Your task to perform on an android device: turn on the 24-hour format for clock Image 0: 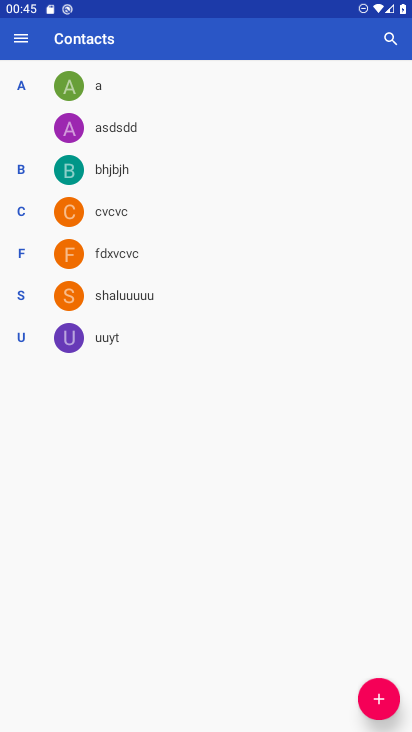
Step 0: press home button
Your task to perform on an android device: turn on the 24-hour format for clock Image 1: 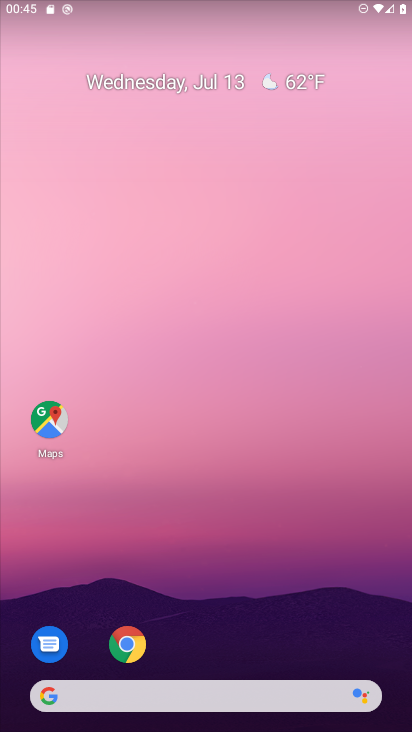
Step 1: drag from (211, 679) to (97, 115)
Your task to perform on an android device: turn on the 24-hour format for clock Image 2: 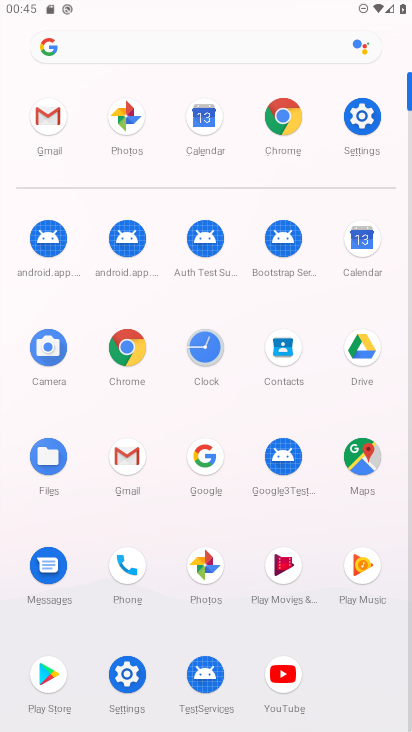
Step 2: click (201, 339)
Your task to perform on an android device: turn on the 24-hour format for clock Image 3: 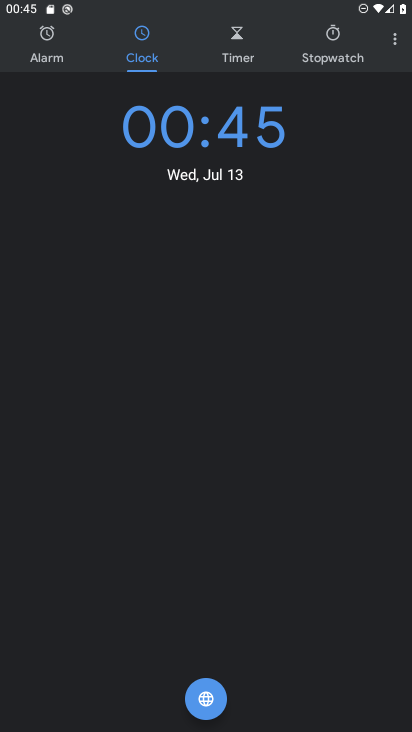
Step 3: click (396, 35)
Your task to perform on an android device: turn on the 24-hour format for clock Image 4: 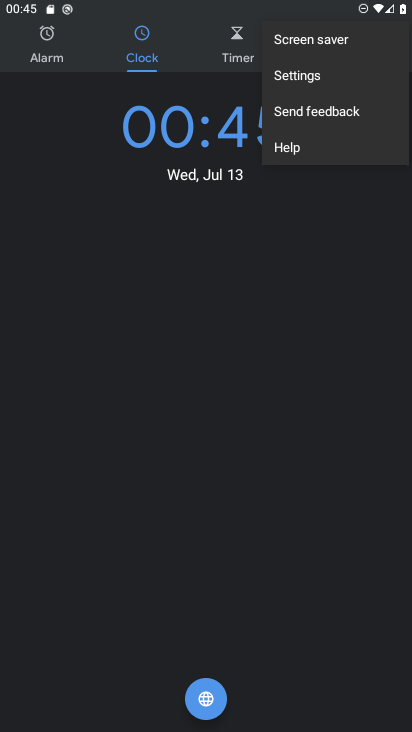
Step 4: click (345, 75)
Your task to perform on an android device: turn on the 24-hour format for clock Image 5: 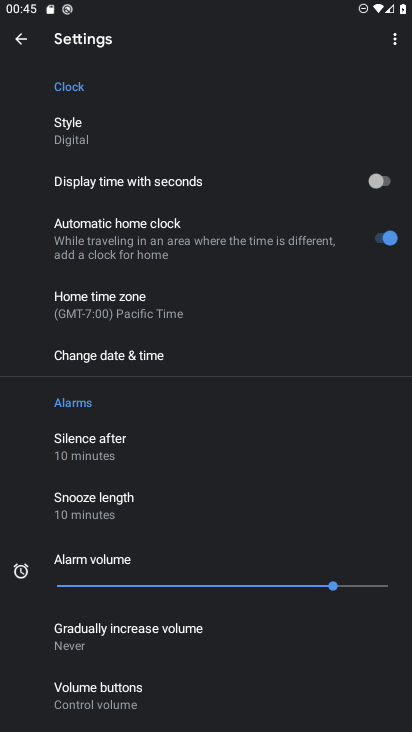
Step 5: click (127, 353)
Your task to perform on an android device: turn on the 24-hour format for clock Image 6: 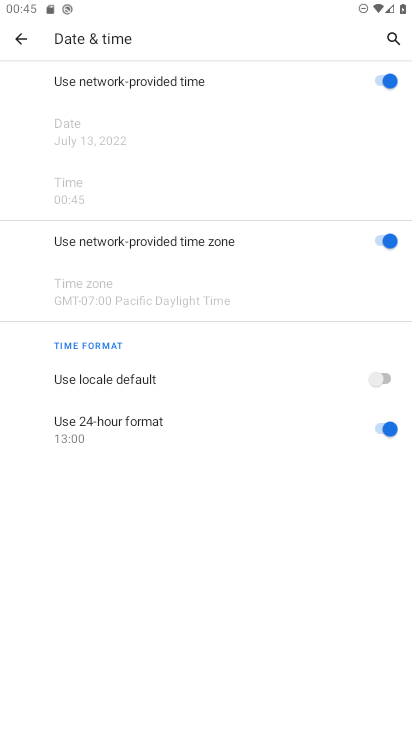
Step 6: task complete